Your task to perform on an android device: Open Chrome and go to settings Image 0: 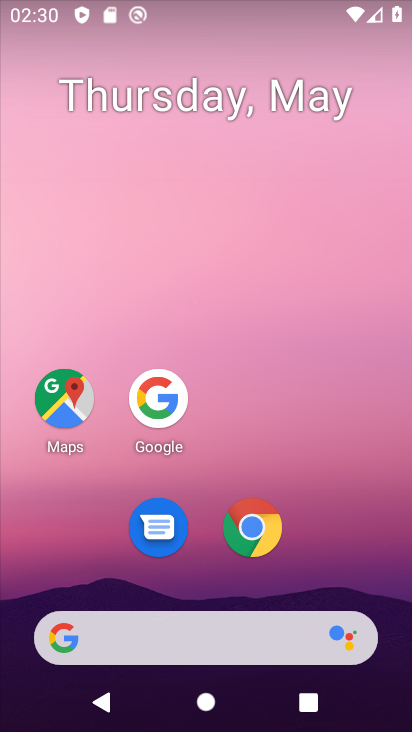
Step 0: drag from (200, 583) to (283, 175)
Your task to perform on an android device: Open Chrome and go to settings Image 1: 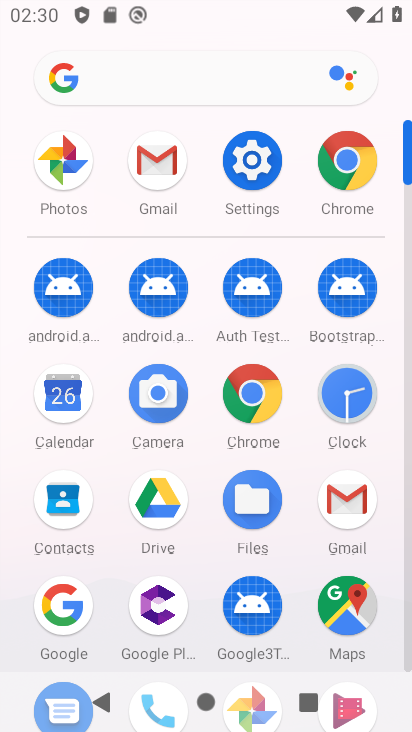
Step 1: click (251, 165)
Your task to perform on an android device: Open Chrome and go to settings Image 2: 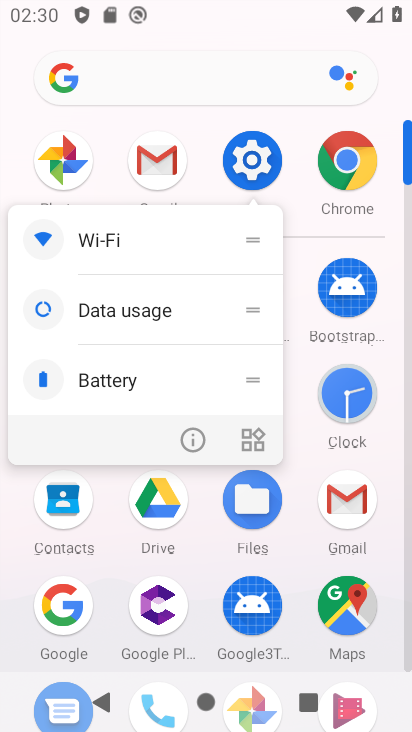
Step 2: click (192, 429)
Your task to perform on an android device: Open Chrome and go to settings Image 3: 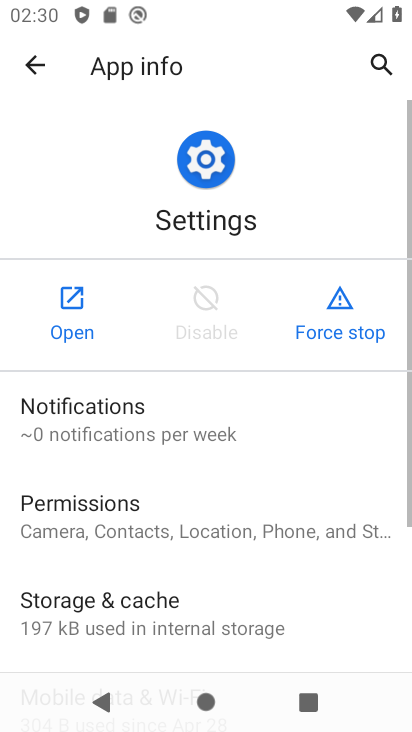
Step 3: press home button
Your task to perform on an android device: Open Chrome and go to settings Image 4: 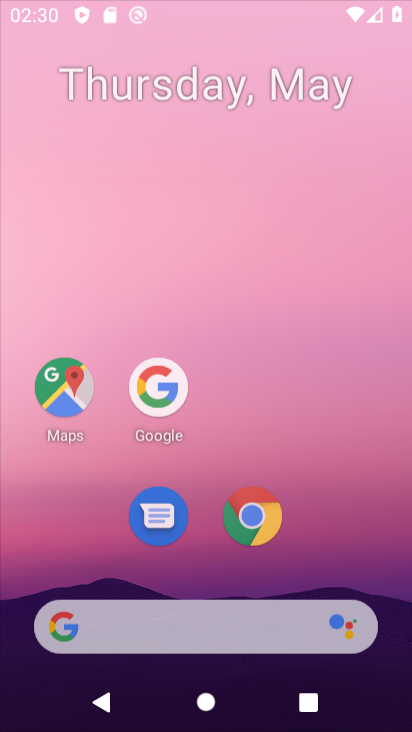
Step 4: drag from (220, 612) to (248, 109)
Your task to perform on an android device: Open Chrome and go to settings Image 5: 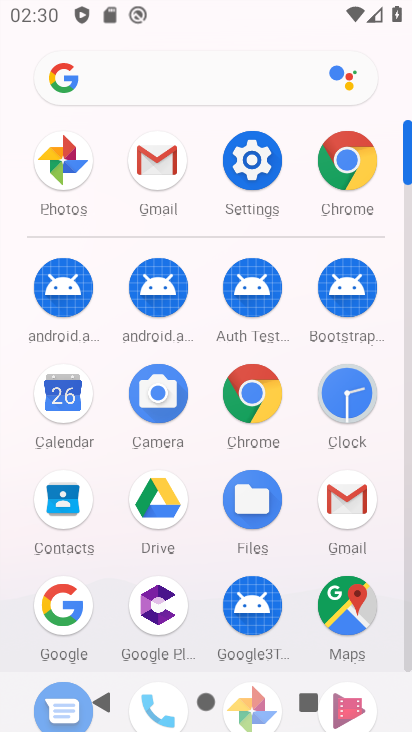
Step 5: click (345, 164)
Your task to perform on an android device: Open Chrome and go to settings Image 6: 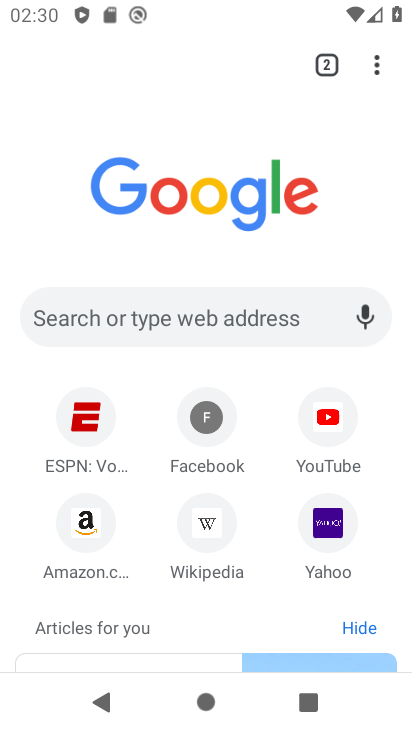
Step 6: click (387, 63)
Your task to perform on an android device: Open Chrome and go to settings Image 7: 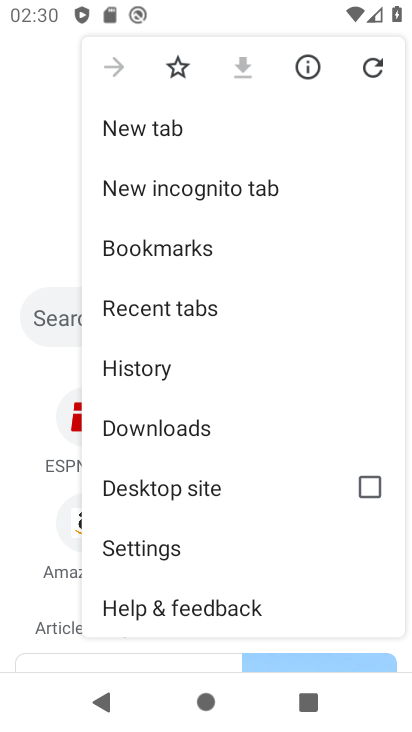
Step 7: click (174, 555)
Your task to perform on an android device: Open Chrome and go to settings Image 8: 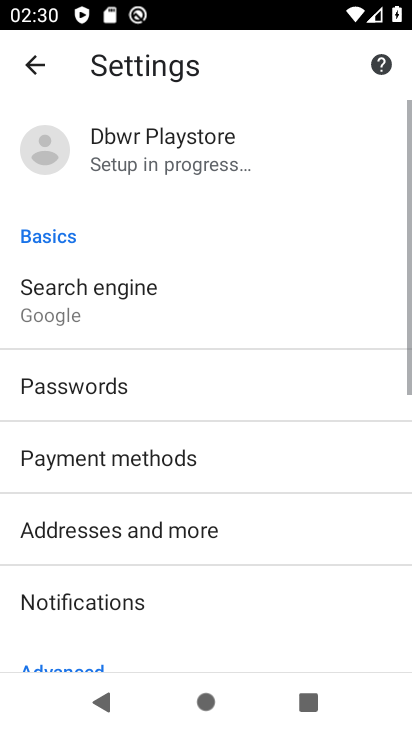
Step 8: task complete